Your task to perform on an android device: turn vacation reply on in the gmail app Image 0: 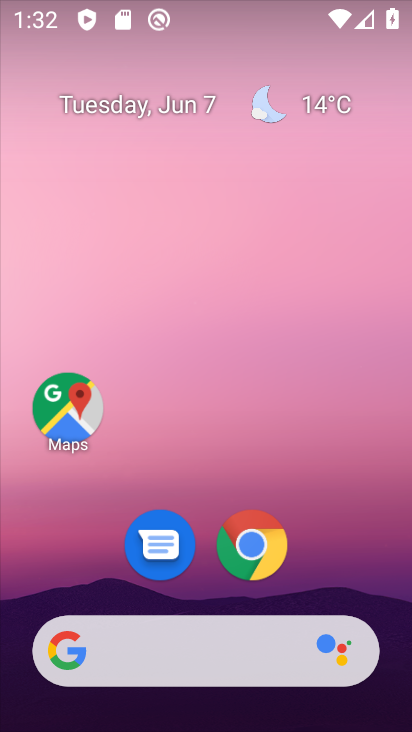
Step 0: drag from (338, 531) to (233, 36)
Your task to perform on an android device: turn vacation reply on in the gmail app Image 1: 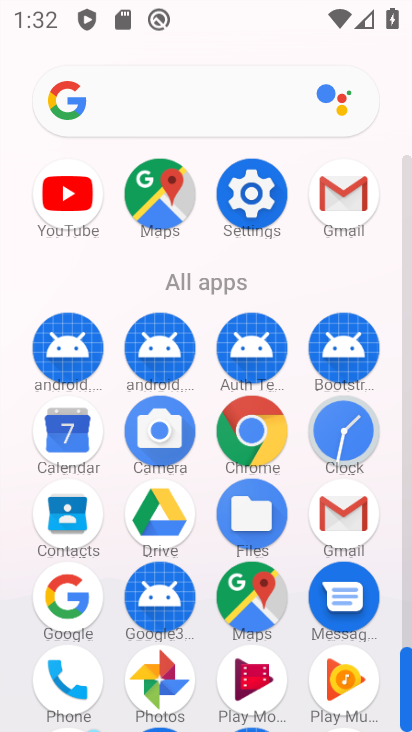
Step 1: click (347, 195)
Your task to perform on an android device: turn vacation reply on in the gmail app Image 2: 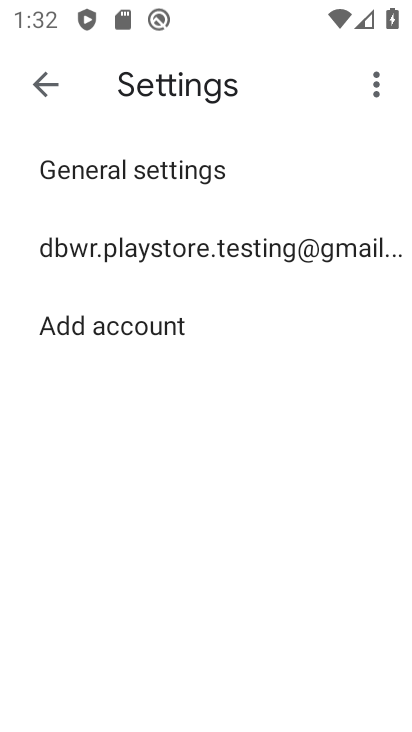
Step 2: click (85, 257)
Your task to perform on an android device: turn vacation reply on in the gmail app Image 3: 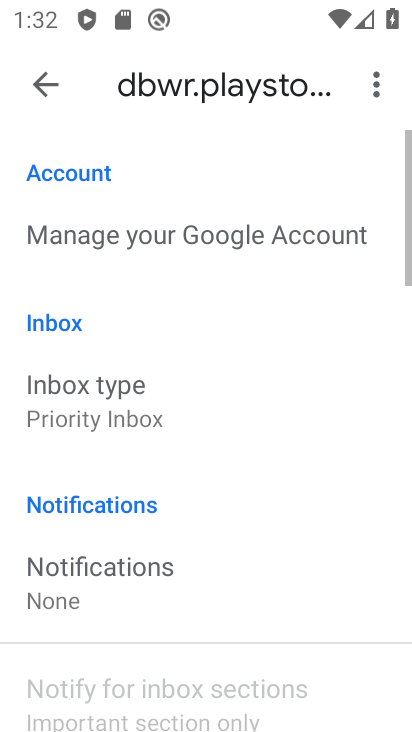
Step 3: drag from (276, 585) to (284, 25)
Your task to perform on an android device: turn vacation reply on in the gmail app Image 4: 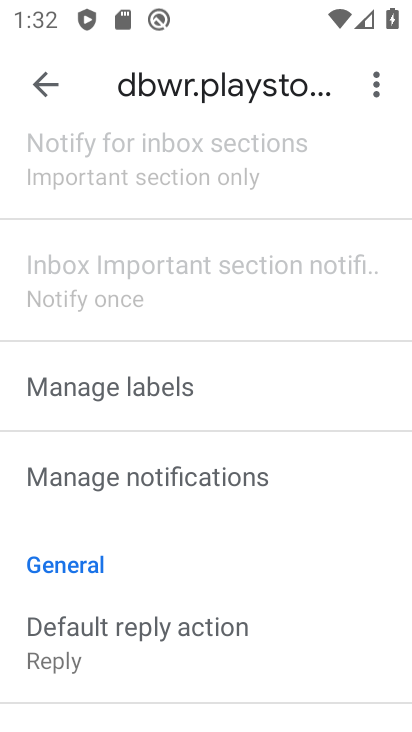
Step 4: drag from (216, 542) to (192, 103)
Your task to perform on an android device: turn vacation reply on in the gmail app Image 5: 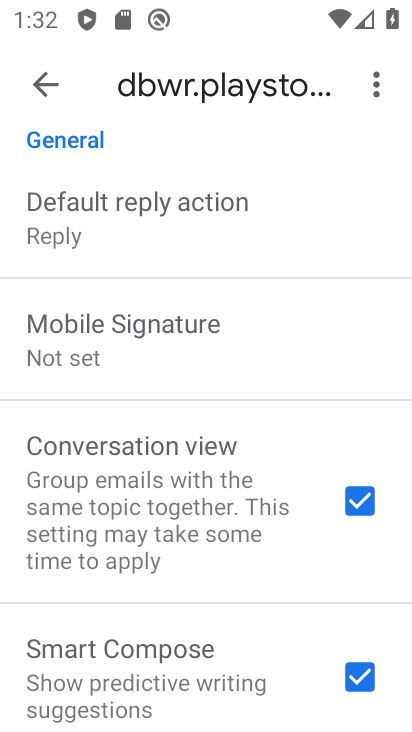
Step 5: drag from (196, 600) to (222, 189)
Your task to perform on an android device: turn vacation reply on in the gmail app Image 6: 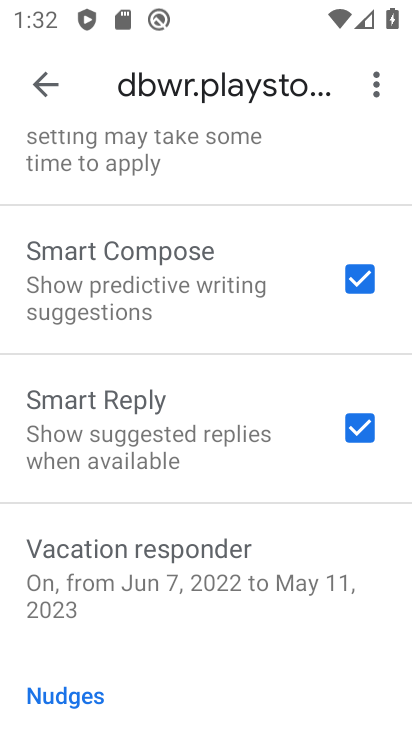
Step 6: click (169, 554)
Your task to perform on an android device: turn vacation reply on in the gmail app Image 7: 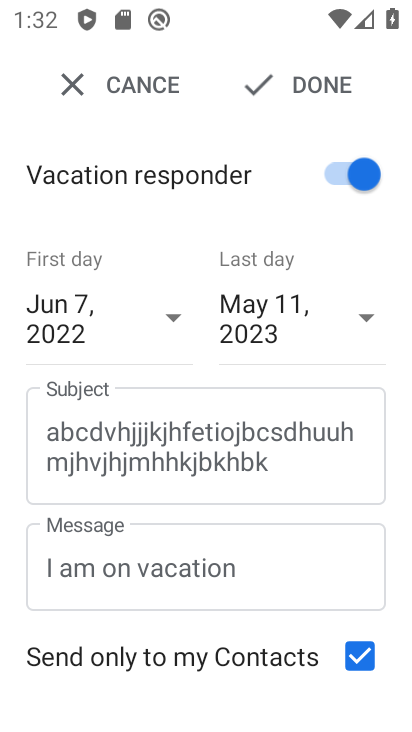
Step 7: click (320, 93)
Your task to perform on an android device: turn vacation reply on in the gmail app Image 8: 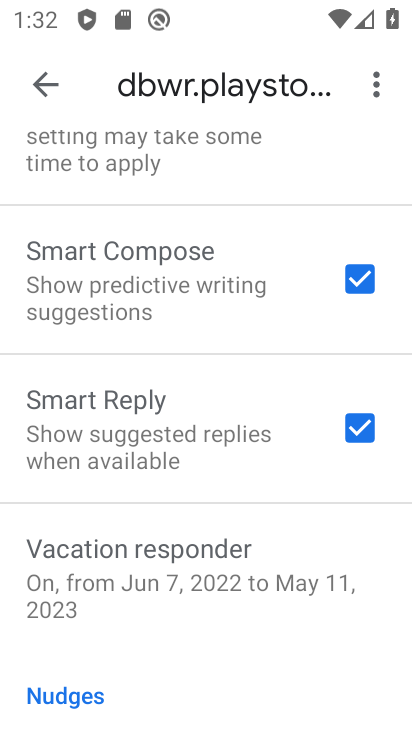
Step 8: task complete